Your task to perform on an android device: What's the weather going to be tomorrow? Image 0: 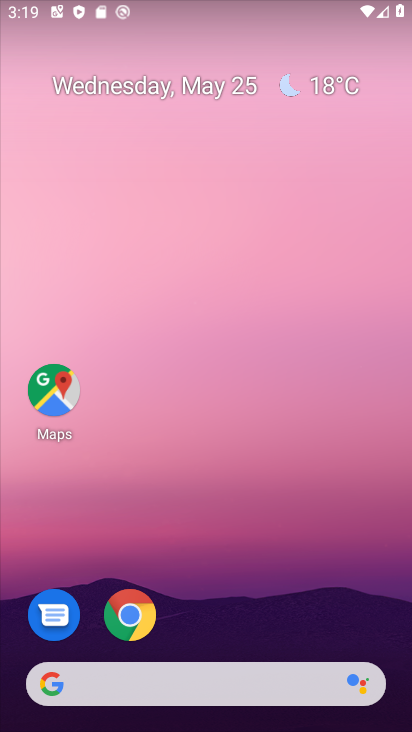
Step 0: drag from (312, 699) to (162, 161)
Your task to perform on an android device: What's the weather going to be tomorrow? Image 1: 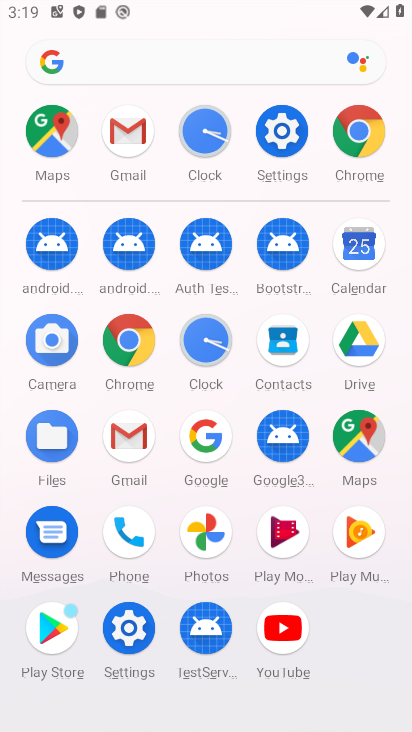
Step 1: press back button
Your task to perform on an android device: What's the weather going to be tomorrow? Image 2: 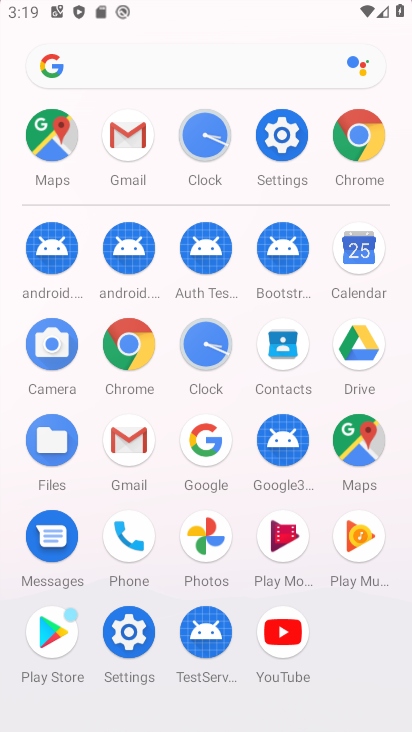
Step 2: press back button
Your task to perform on an android device: What's the weather going to be tomorrow? Image 3: 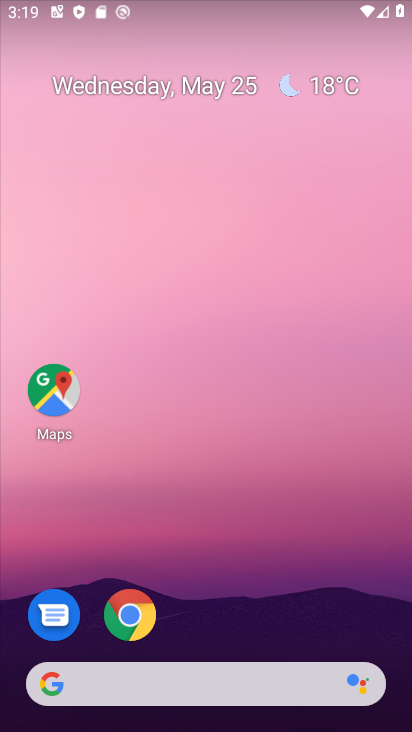
Step 3: press back button
Your task to perform on an android device: What's the weather going to be tomorrow? Image 4: 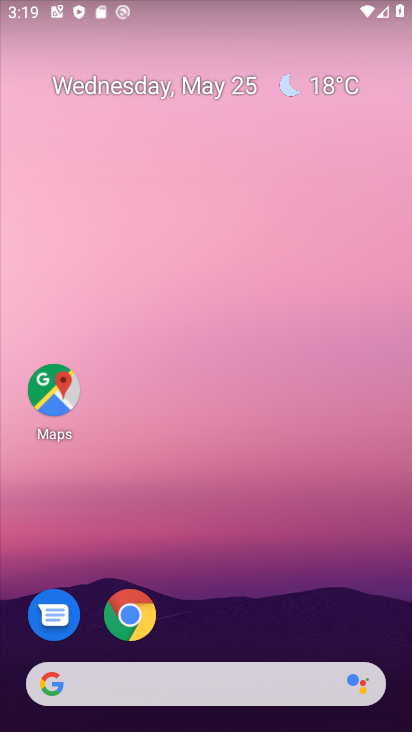
Step 4: drag from (380, 341) to (365, 126)
Your task to perform on an android device: What's the weather going to be tomorrow? Image 5: 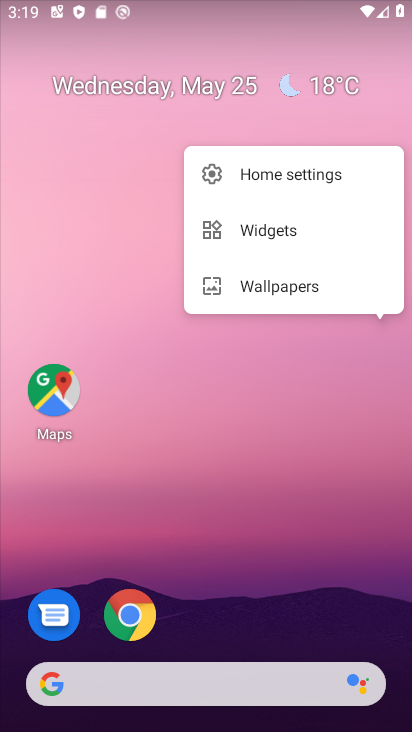
Step 5: drag from (128, 230) to (343, 502)
Your task to perform on an android device: What's the weather going to be tomorrow? Image 6: 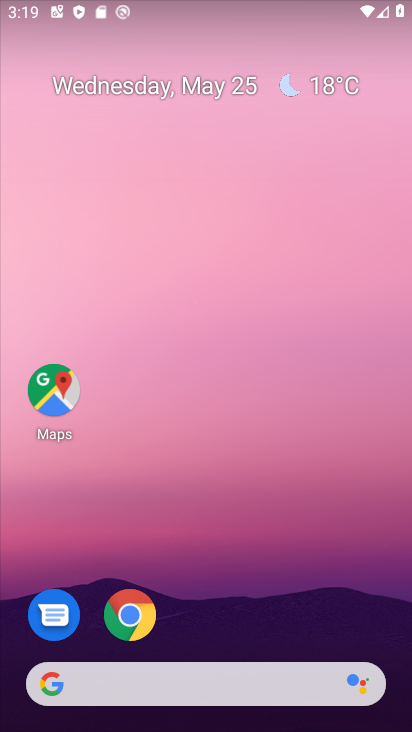
Step 6: drag from (3, 171) to (375, 399)
Your task to perform on an android device: What's the weather going to be tomorrow? Image 7: 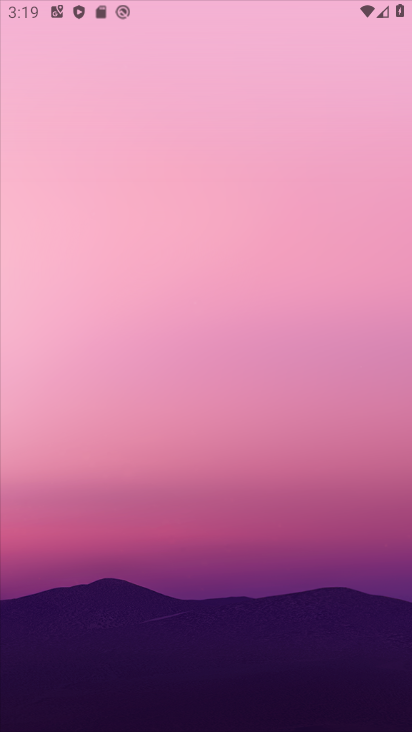
Step 7: drag from (34, 157) to (351, 462)
Your task to perform on an android device: What's the weather going to be tomorrow? Image 8: 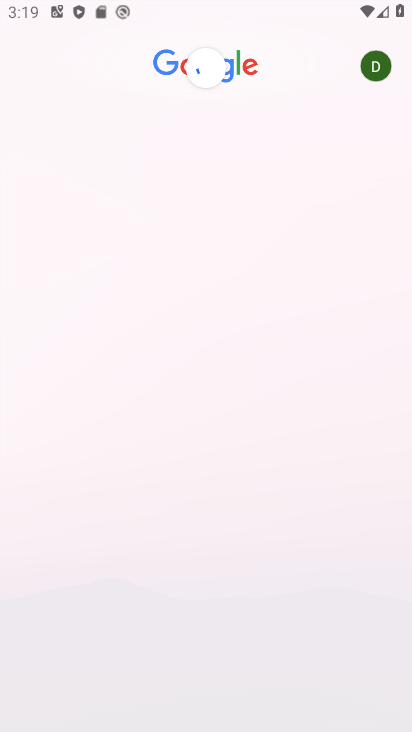
Step 8: drag from (39, 226) to (265, 481)
Your task to perform on an android device: What's the weather going to be tomorrow? Image 9: 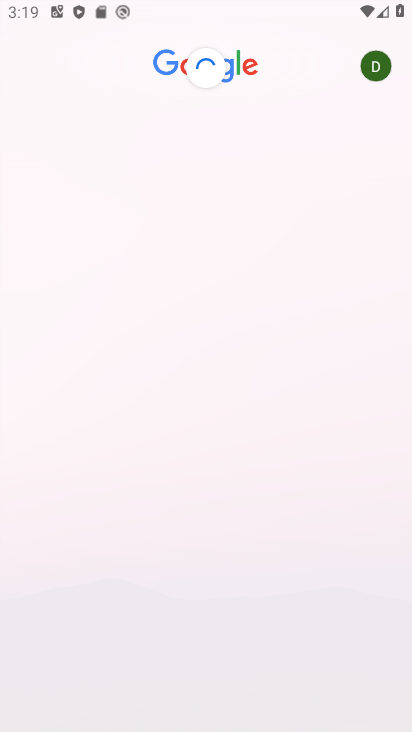
Step 9: drag from (32, 197) to (206, 519)
Your task to perform on an android device: What's the weather going to be tomorrow? Image 10: 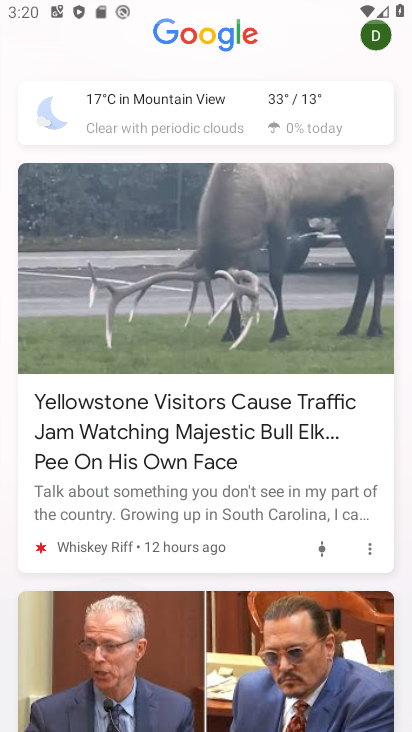
Step 10: click (175, 116)
Your task to perform on an android device: What's the weather going to be tomorrow? Image 11: 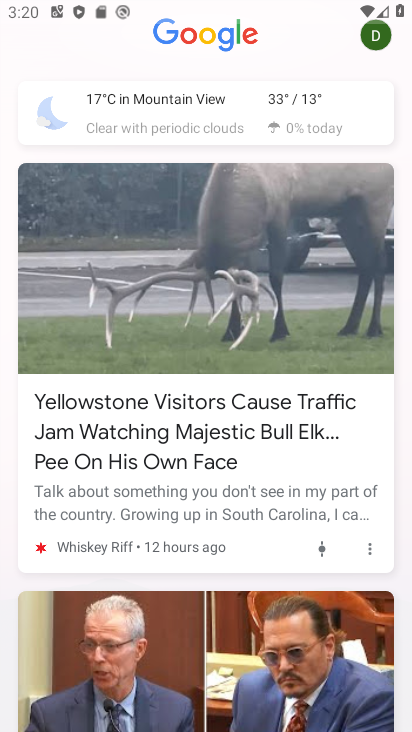
Step 11: click (175, 108)
Your task to perform on an android device: What's the weather going to be tomorrow? Image 12: 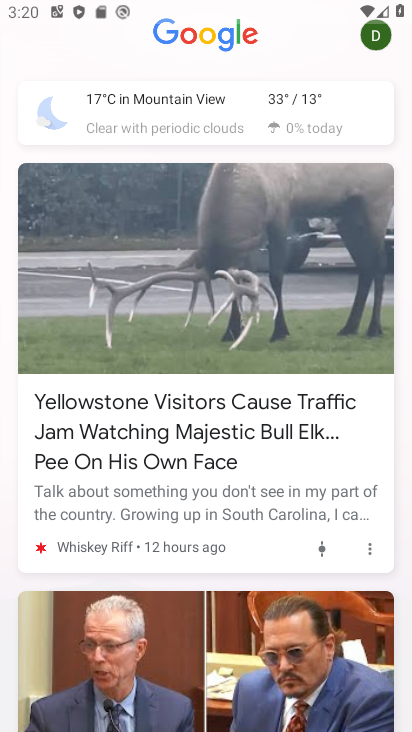
Step 12: click (176, 107)
Your task to perform on an android device: What's the weather going to be tomorrow? Image 13: 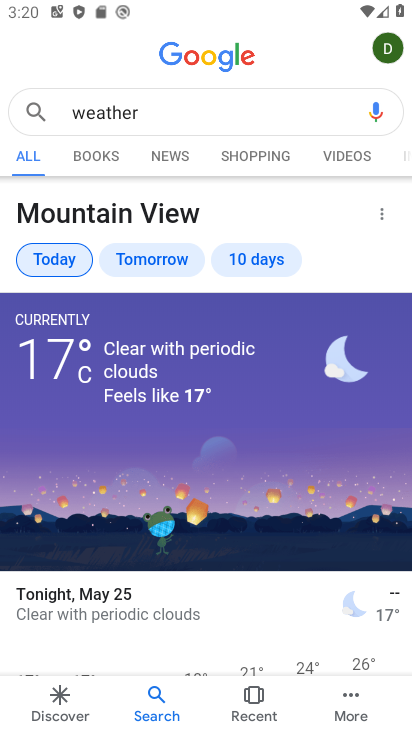
Step 13: click (137, 259)
Your task to perform on an android device: What's the weather going to be tomorrow? Image 14: 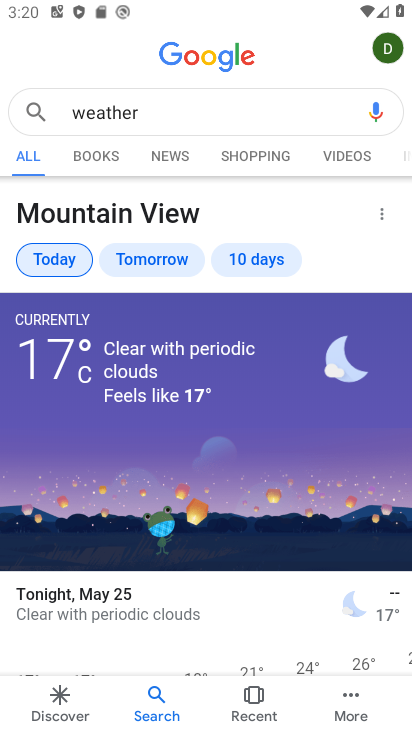
Step 14: click (150, 264)
Your task to perform on an android device: What's the weather going to be tomorrow? Image 15: 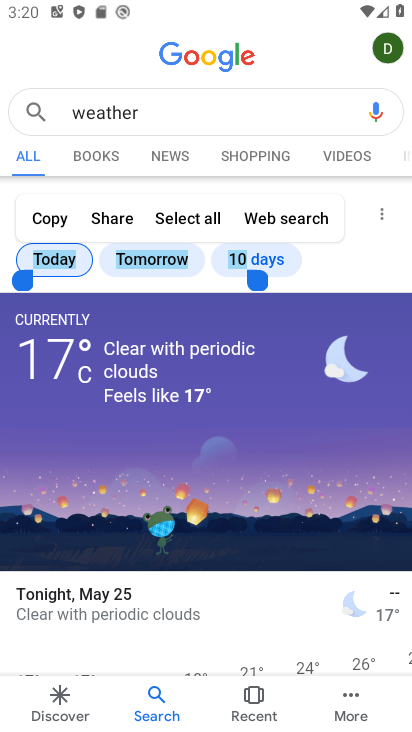
Step 15: click (150, 256)
Your task to perform on an android device: What's the weather going to be tomorrow? Image 16: 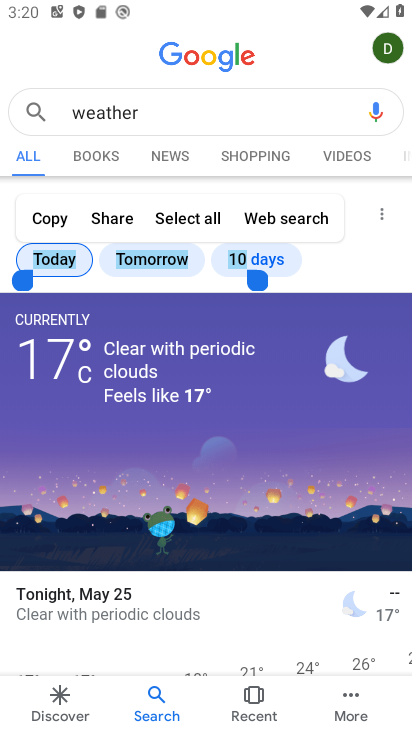
Step 16: click (150, 256)
Your task to perform on an android device: What's the weather going to be tomorrow? Image 17: 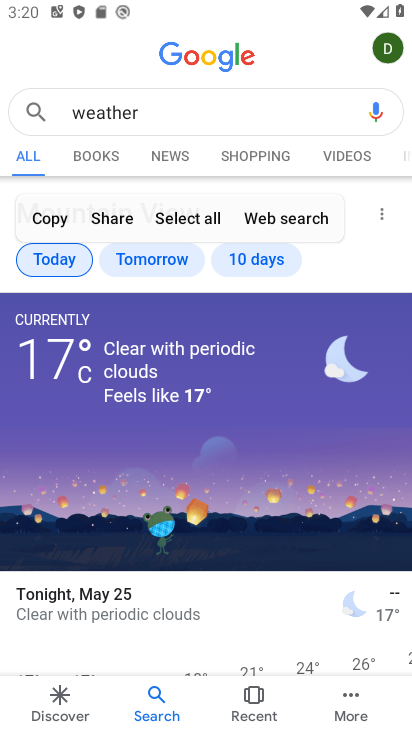
Step 17: click (150, 256)
Your task to perform on an android device: What's the weather going to be tomorrow? Image 18: 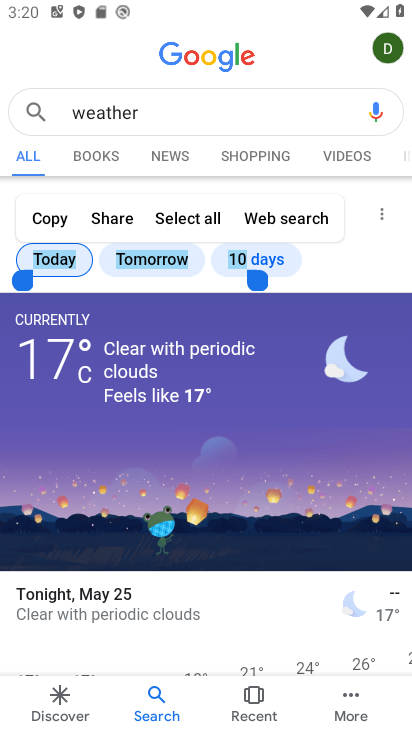
Step 18: click (161, 250)
Your task to perform on an android device: What's the weather going to be tomorrow? Image 19: 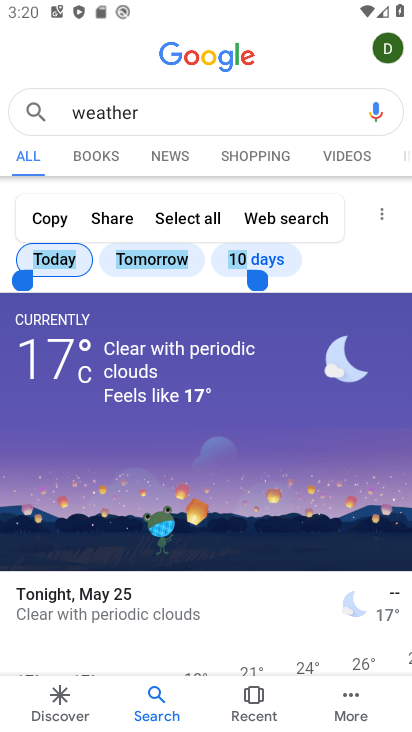
Step 19: click (163, 252)
Your task to perform on an android device: What's the weather going to be tomorrow? Image 20: 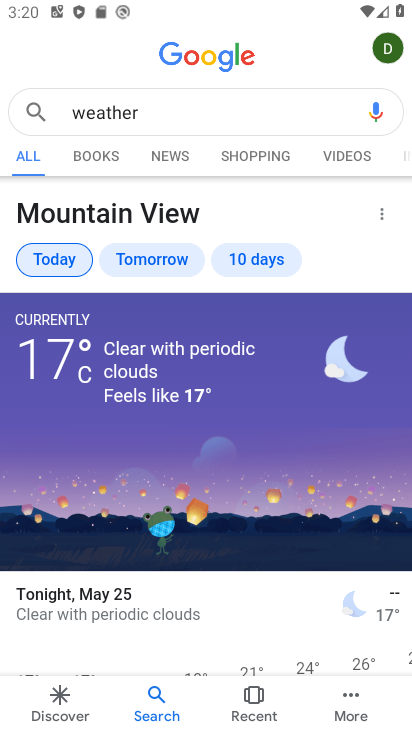
Step 20: click (163, 253)
Your task to perform on an android device: What's the weather going to be tomorrow? Image 21: 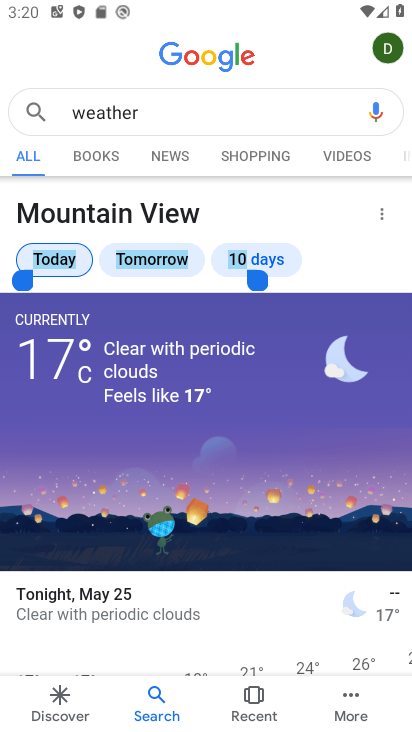
Step 21: click (143, 255)
Your task to perform on an android device: What's the weather going to be tomorrow? Image 22: 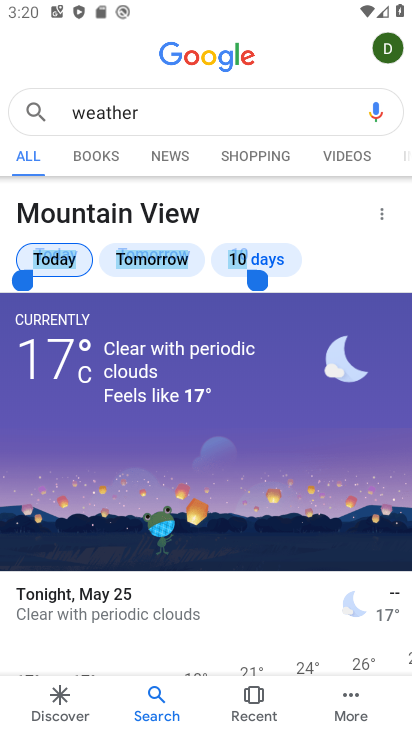
Step 22: click (143, 255)
Your task to perform on an android device: What's the weather going to be tomorrow? Image 23: 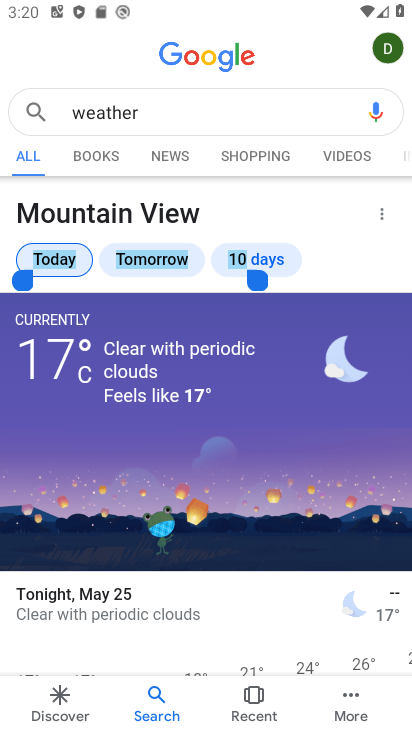
Step 23: click (156, 259)
Your task to perform on an android device: What's the weather going to be tomorrow? Image 24: 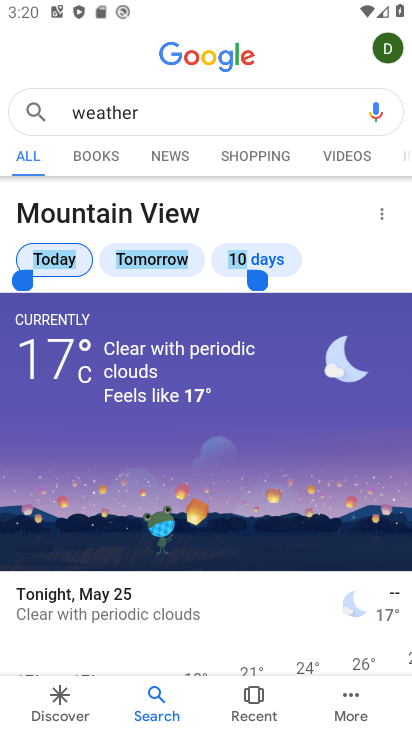
Step 24: task complete